Your task to perform on an android device: What's the weather going to be tomorrow? Image 0: 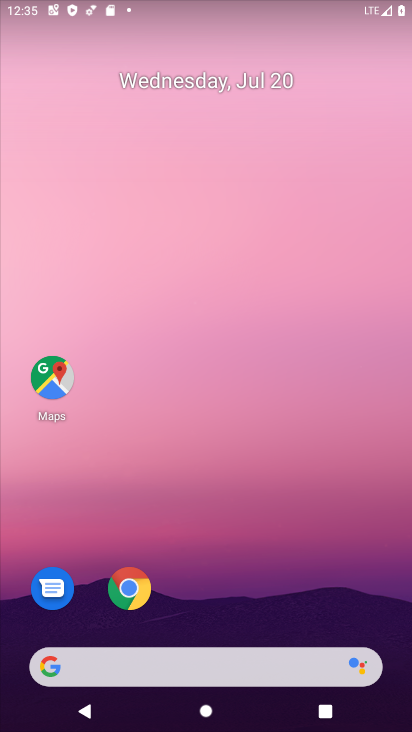
Step 0: drag from (0, 269) to (407, 299)
Your task to perform on an android device: What's the weather going to be tomorrow? Image 1: 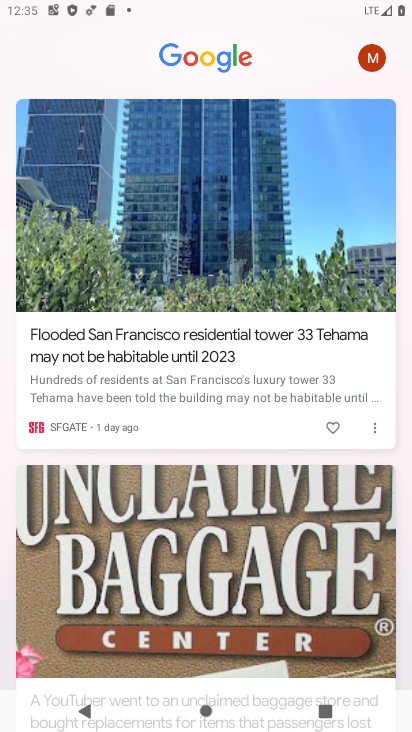
Step 1: task complete